Your task to perform on an android device: change text size in settings app Image 0: 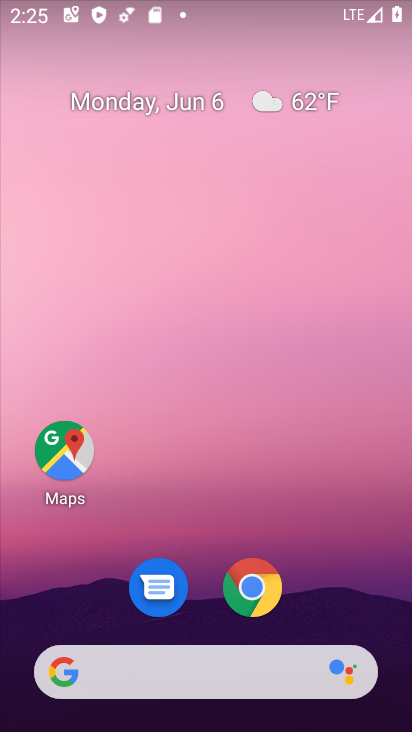
Step 0: drag from (356, 575) to (248, 31)
Your task to perform on an android device: change text size in settings app Image 1: 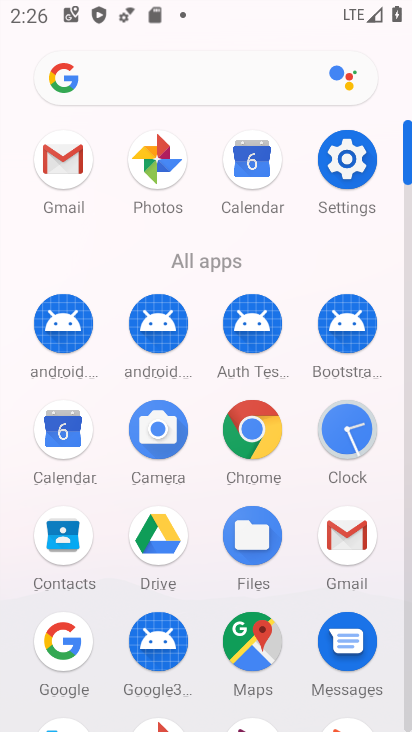
Step 1: drag from (12, 589) to (32, 255)
Your task to perform on an android device: change text size in settings app Image 2: 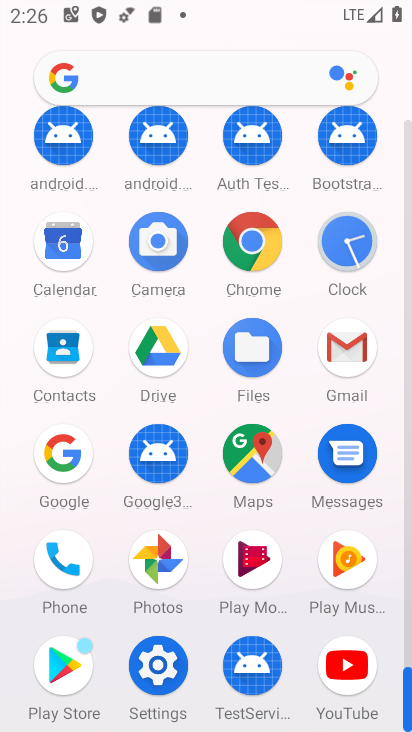
Step 2: click (157, 665)
Your task to perform on an android device: change text size in settings app Image 3: 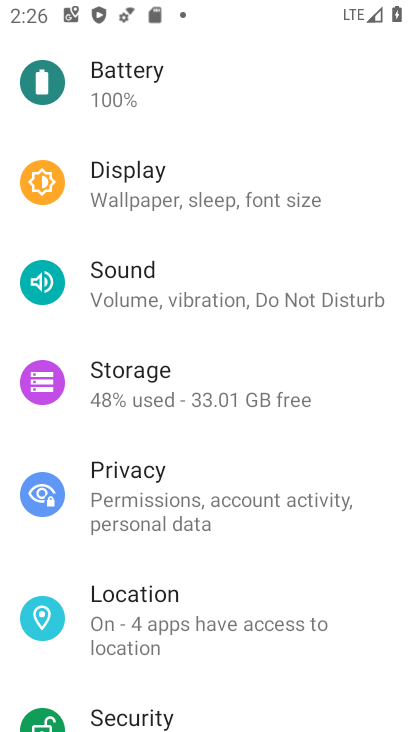
Step 3: drag from (190, 125) to (208, 563)
Your task to perform on an android device: change text size in settings app Image 4: 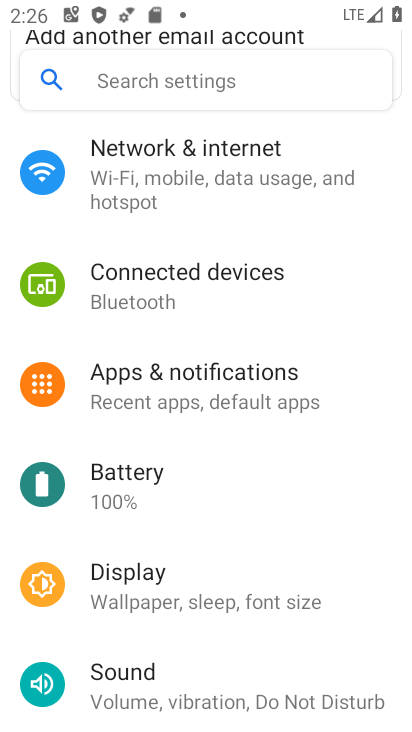
Step 4: click (244, 592)
Your task to perform on an android device: change text size in settings app Image 5: 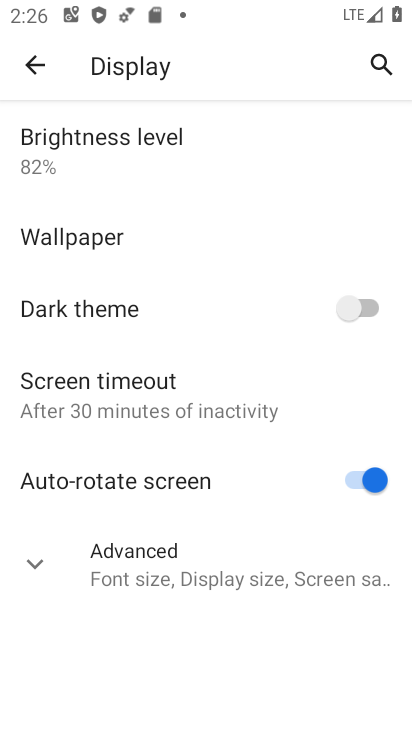
Step 5: click (125, 522)
Your task to perform on an android device: change text size in settings app Image 6: 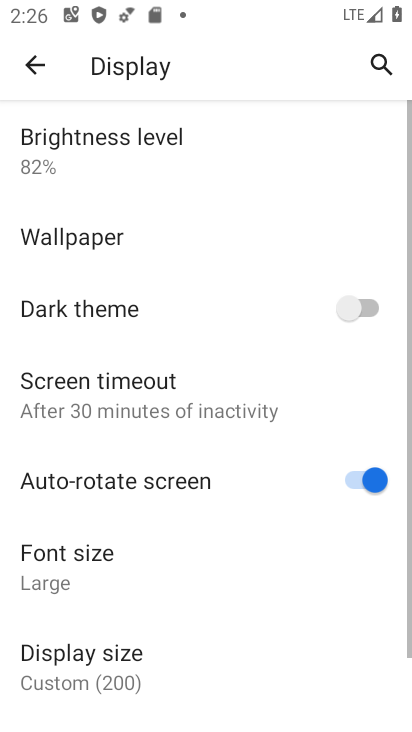
Step 6: drag from (180, 639) to (252, 233)
Your task to perform on an android device: change text size in settings app Image 7: 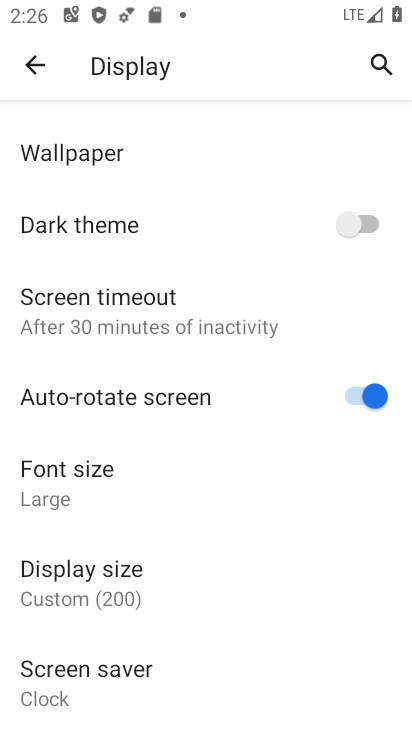
Step 7: click (151, 444)
Your task to perform on an android device: change text size in settings app Image 8: 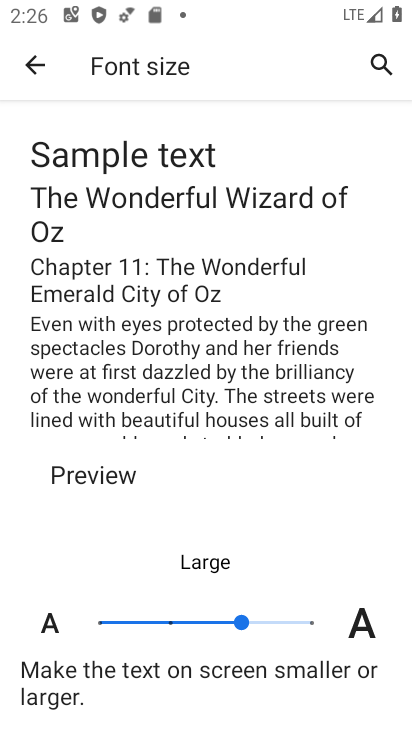
Step 8: click (319, 617)
Your task to perform on an android device: change text size in settings app Image 9: 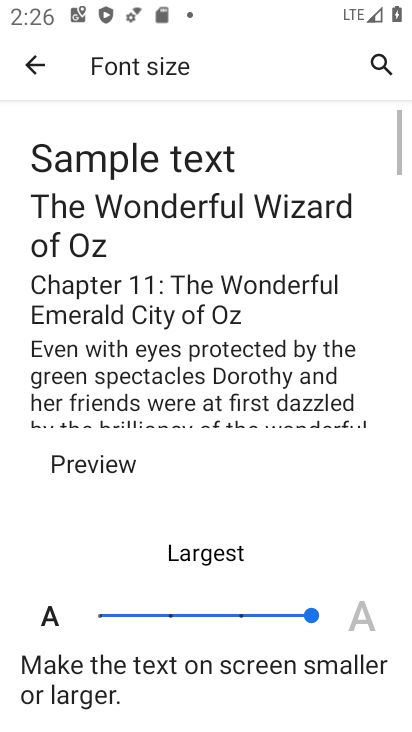
Step 9: task complete